Your task to perform on an android device: set an alarm Image 0: 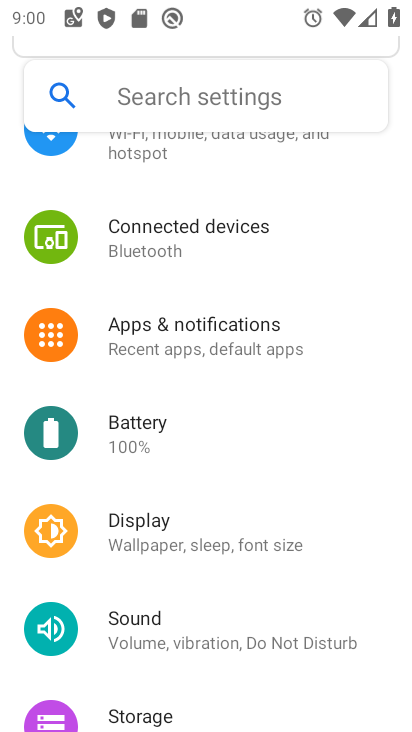
Step 0: press home button
Your task to perform on an android device: set an alarm Image 1: 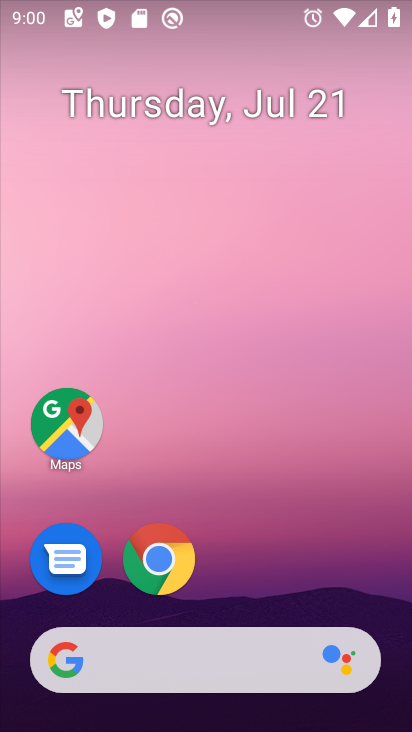
Step 1: drag from (313, 548) to (332, 210)
Your task to perform on an android device: set an alarm Image 2: 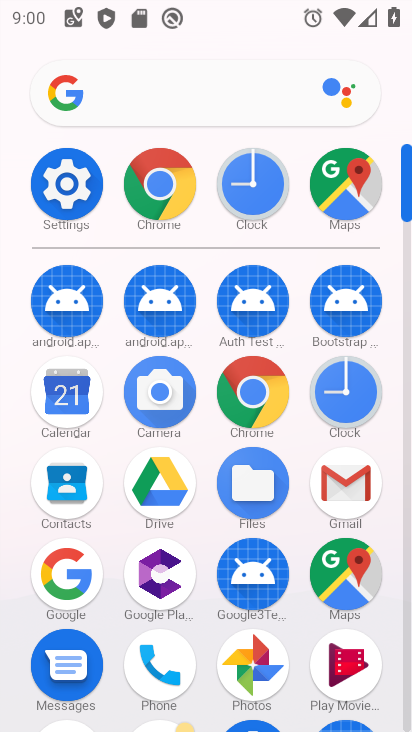
Step 2: click (348, 396)
Your task to perform on an android device: set an alarm Image 3: 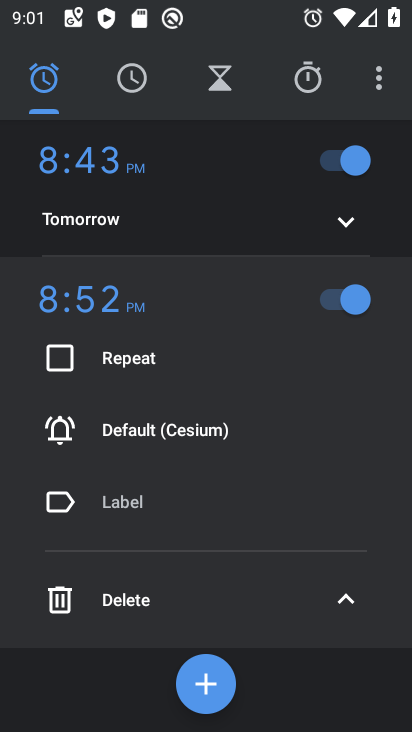
Step 3: click (214, 675)
Your task to perform on an android device: set an alarm Image 4: 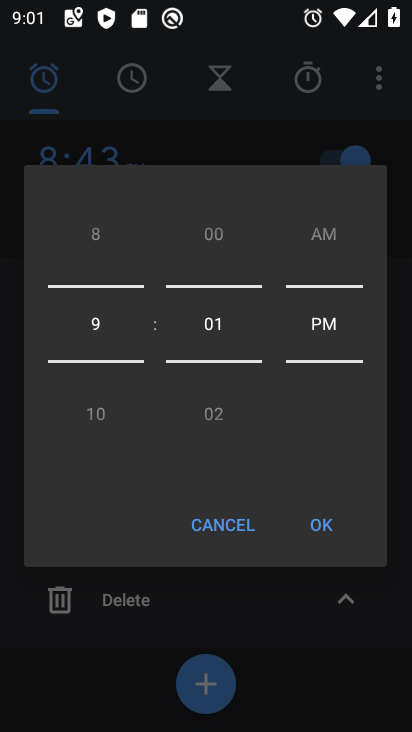
Step 4: click (318, 528)
Your task to perform on an android device: set an alarm Image 5: 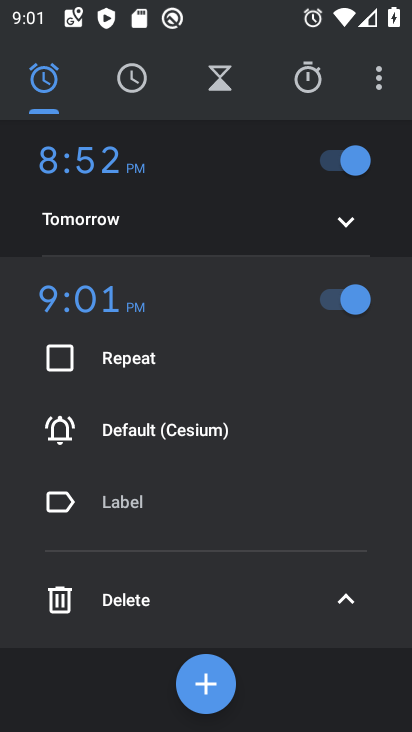
Step 5: task complete